Your task to perform on an android device: Open Youtube and go to the subscriptions tab Image 0: 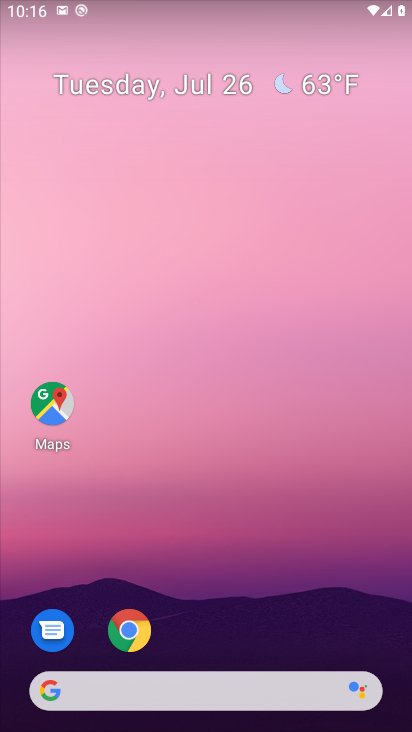
Step 0: press home button
Your task to perform on an android device: Open Youtube and go to the subscriptions tab Image 1: 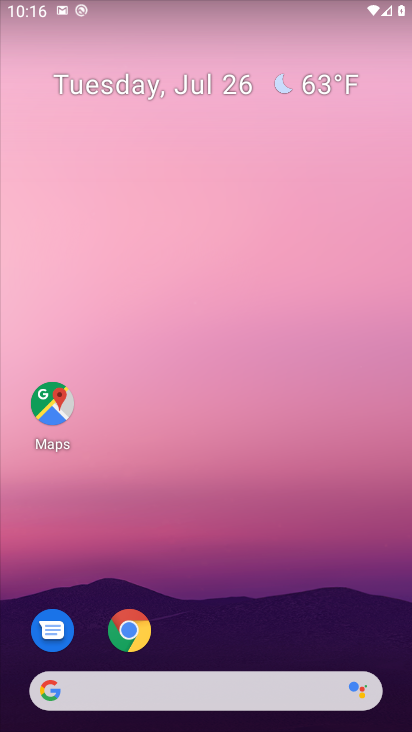
Step 1: drag from (204, 652) to (219, 71)
Your task to perform on an android device: Open Youtube and go to the subscriptions tab Image 2: 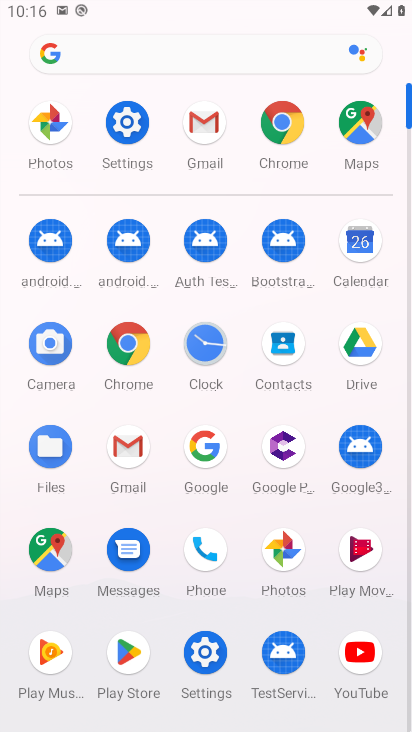
Step 2: click (358, 644)
Your task to perform on an android device: Open Youtube and go to the subscriptions tab Image 3: 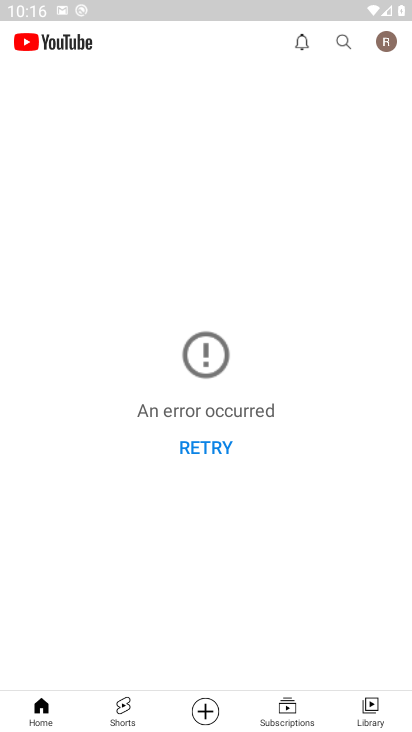
Step 3: click (285, 702)
Your task to perform on an android device: Open Youtube and go to the subscriptions tab Image 4: 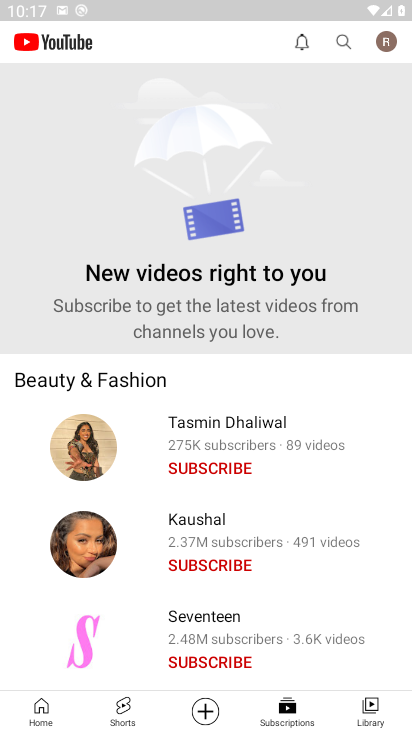
Step 4: task complete